Your task to perform on an android device: What's on my calendar tomorrow? Image 0: 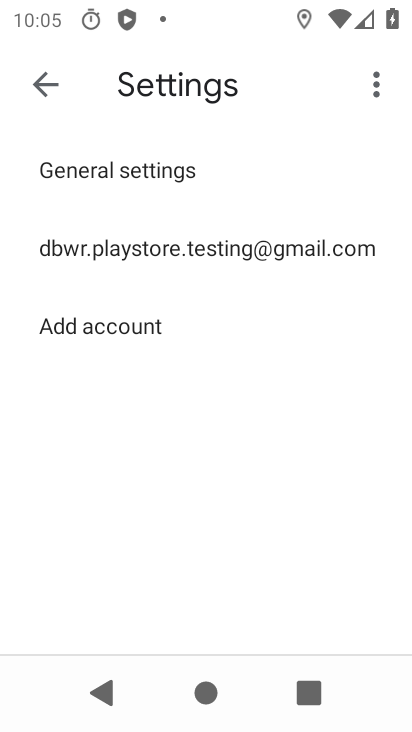
Step 0: press home button
Your task to perform on an android device: What's on my calendar tomorrow? Image 1: 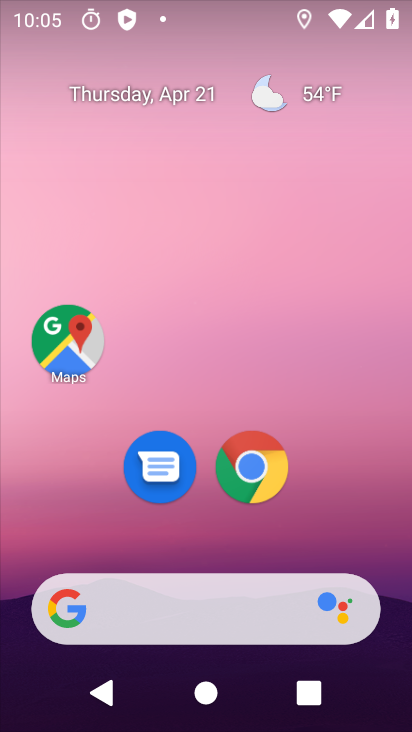
Step 1: drag from (379, 510) to (357, 157)
Your task to perform on an android device: What's on my calendar tomorrow? Image 2: 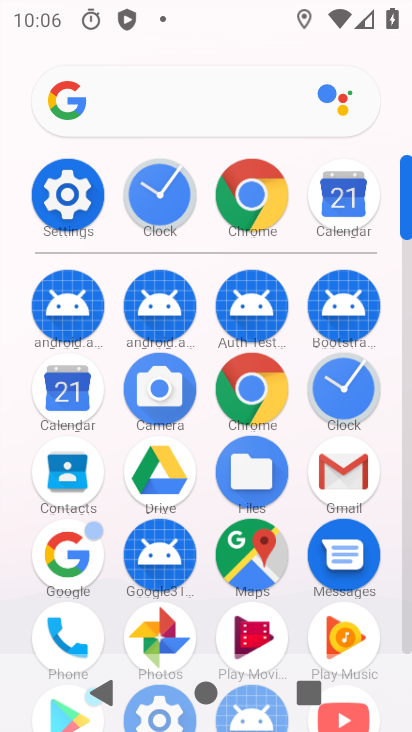
Step 2: click (56, 390)
Your task to perform on an android device: What's on my calendar tomorrow? Image 3: 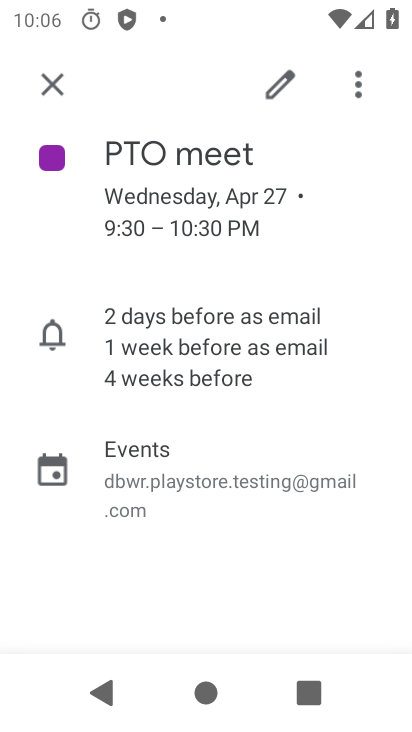
Step 3: click (44, 86)
Your task to perform on an android device: What's on my calendar tomorrow? Image 4: 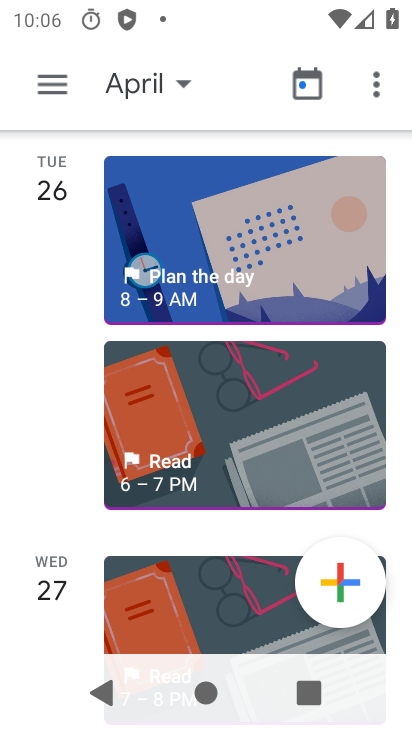
Step 4: click (173, 80)
Your task to perform on an android device: What's on my calendar tomorrow? Image 5: 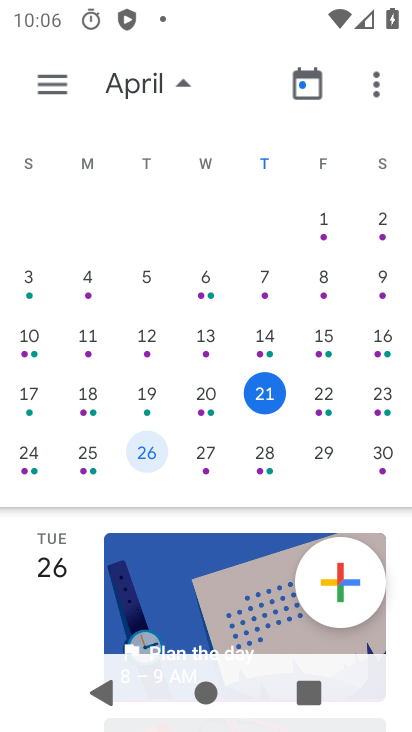
Step 5: click (328, 394)
Your task to perform on an android device: What's on my calendar tomorrow? Image 6: 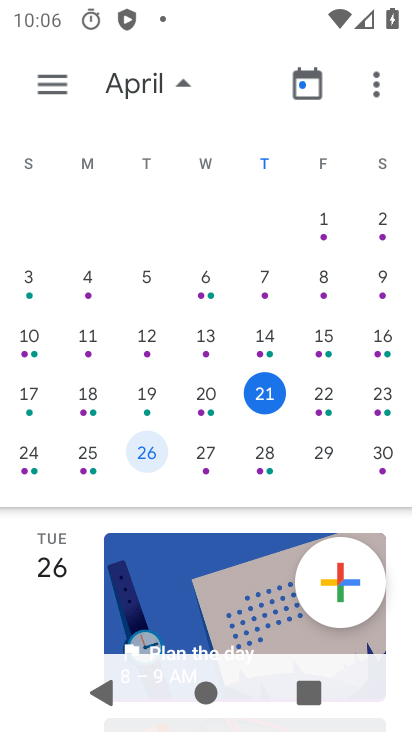
Step 6: click (320, 403)
Your task to perform on an android device: What's on my calendar tomorrow? Image 7: 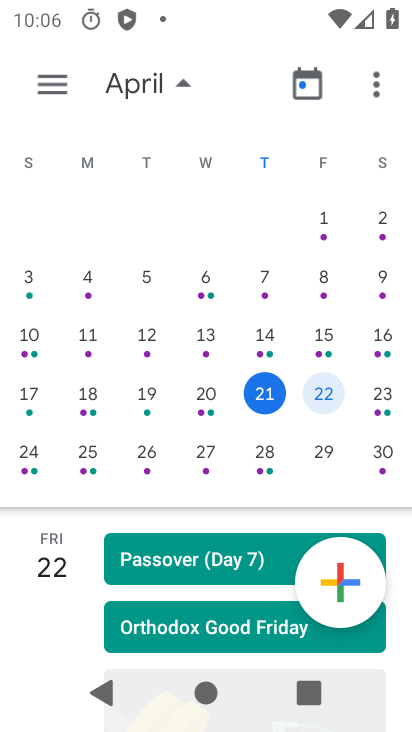
Step 7: task complete